Your task to perform on an android device: turn pop-ups off in chrome Image 0: 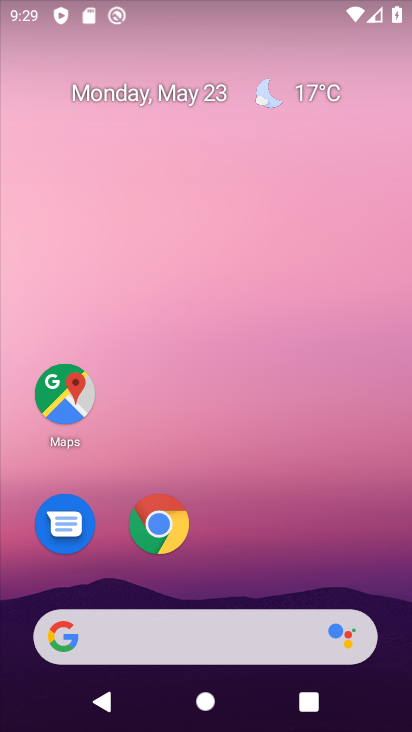
Step 0: click (163, 535)
Your task to perform on an android device: turn pop-ups off in chrome Image 1: 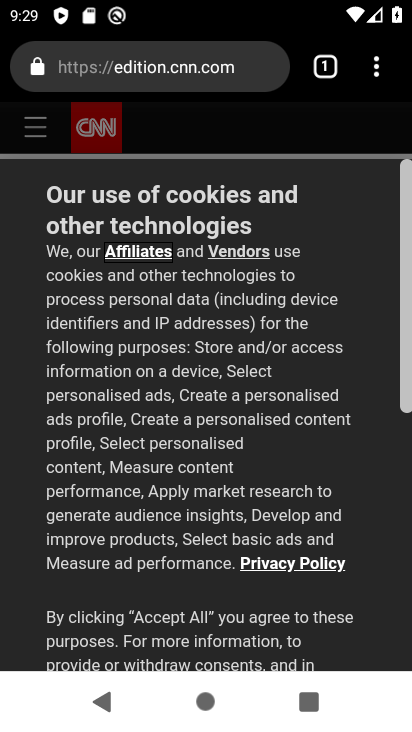
Step 1: drag from (374, 55) to (152, 527)
Your task to perform on an android device: turn pop-ups off in chrome Image 2: 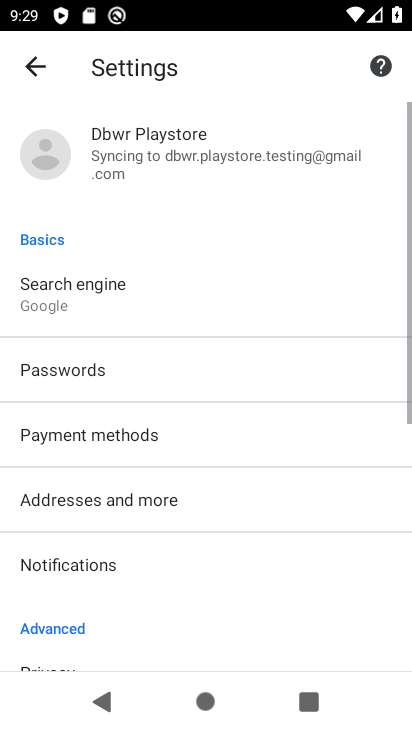
Step 2: drag from (196, 622) to (270, 127)
Your task to perform on an android device: turn pop-ups off in chrome Image 3: 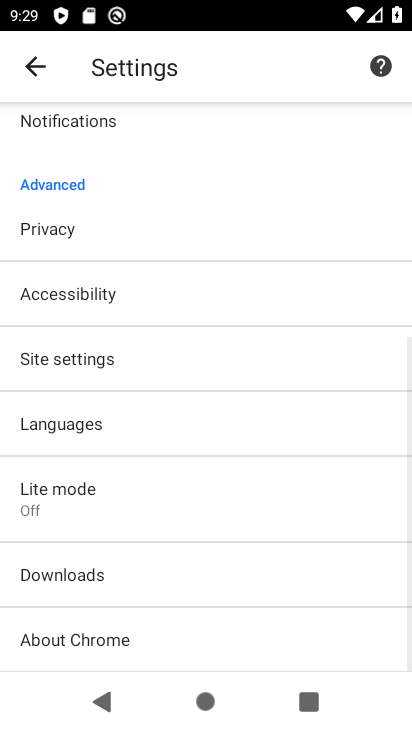
Step 3: click (97, 373)
Your task to perform on an android device: turn pop-ups off in chrome Image 4: 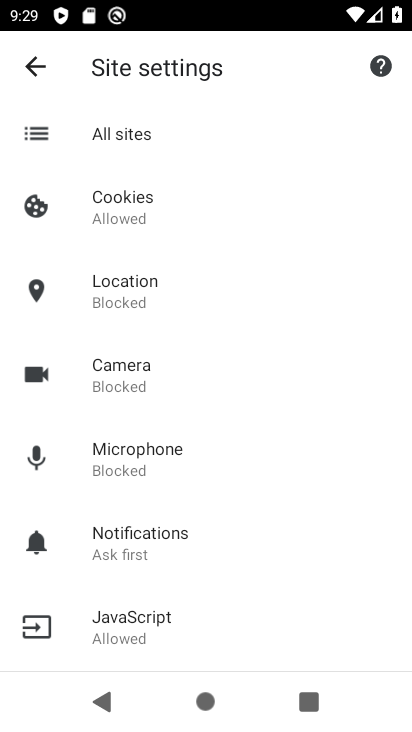
Step 4: drag from (234, 571) to (240, 323)
Your task to perform on an android device: turn pop-ups off in chrome Image 5: 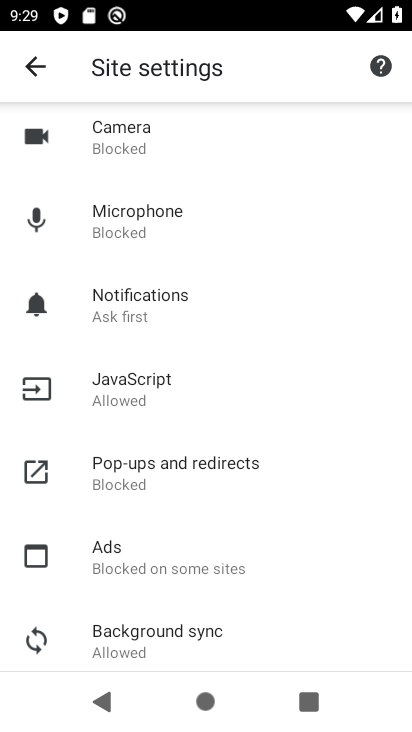
Step 5: drag from (208, 628) to (213, 534)
Your task to perform on an android device: turn pop-ups off in chrome Image 6: 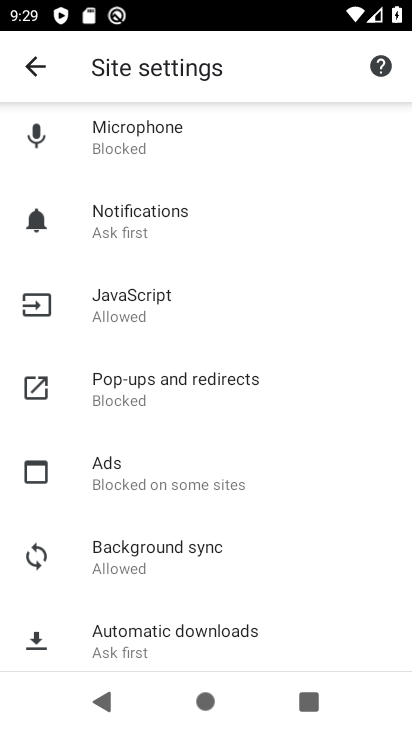
Step 6: click (167, 395)
Your task to perform on an android device: turn pop-ups off in chrome Image 7: 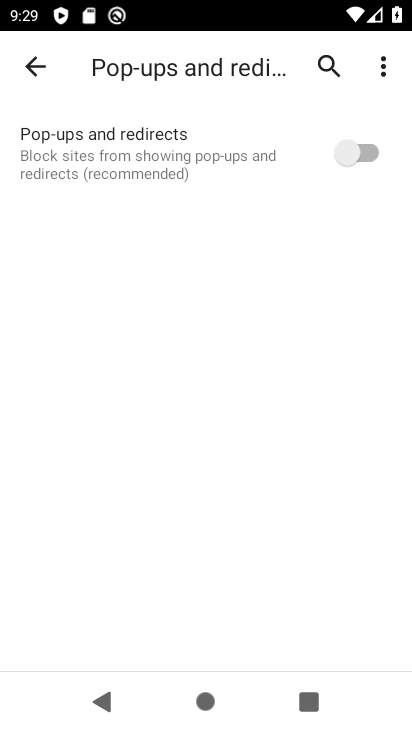
Step 7: task complete